Your task to perform on an android device: install app "Life360: Find Family & Friends" Image 0: 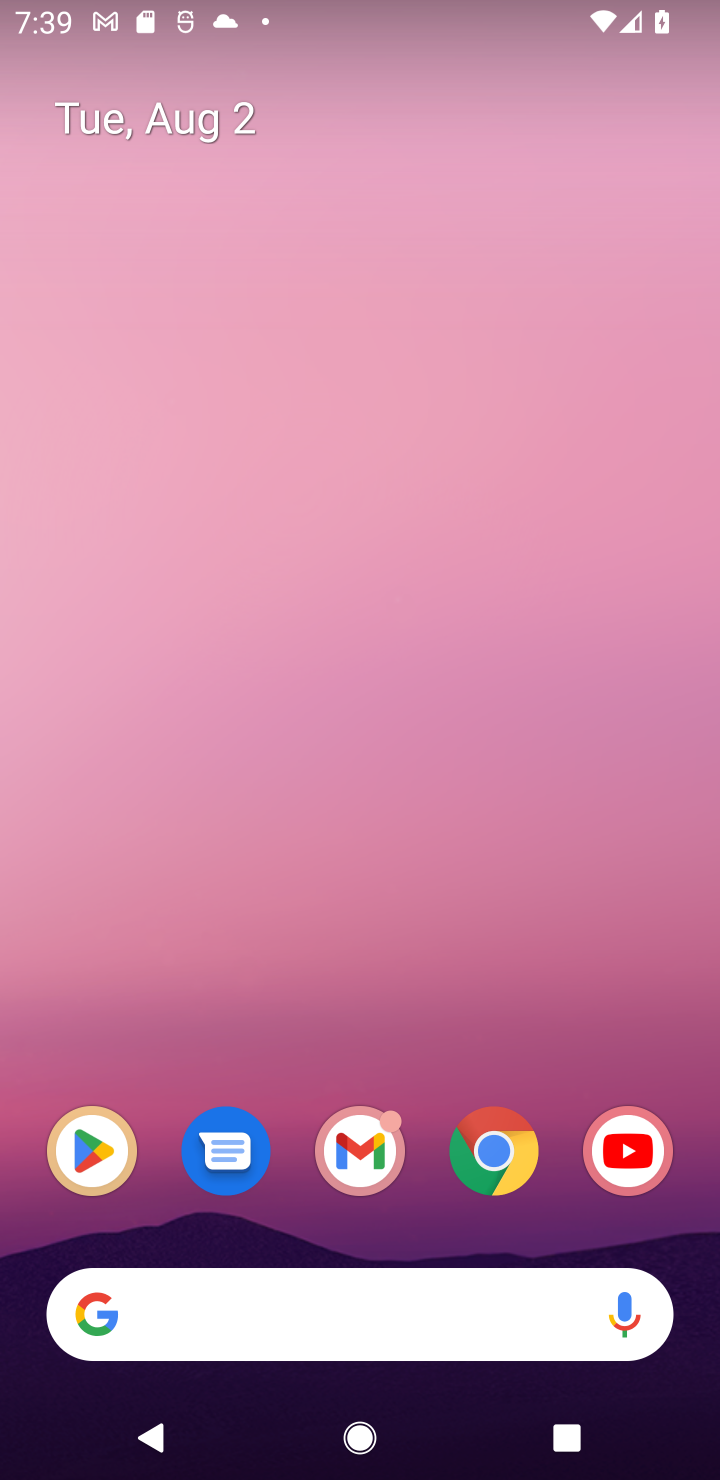
Step 0: click (85, 1158)
Your task to perform on an android device: install app "Life360: Find Family & Friends" Image 1: 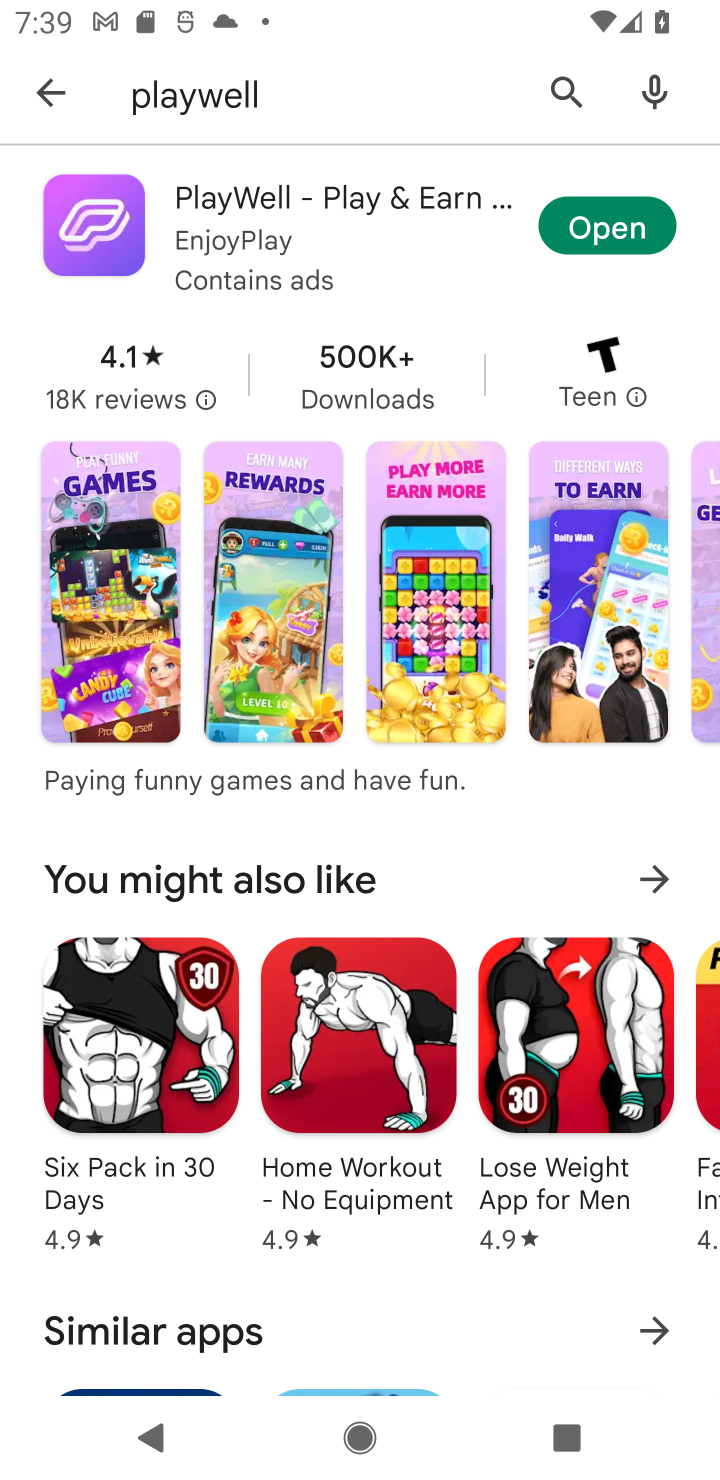
Step 1: click (629, 89)
Your task to perform on an android device: install app "Life360: Find Family & Friends" Image 2: 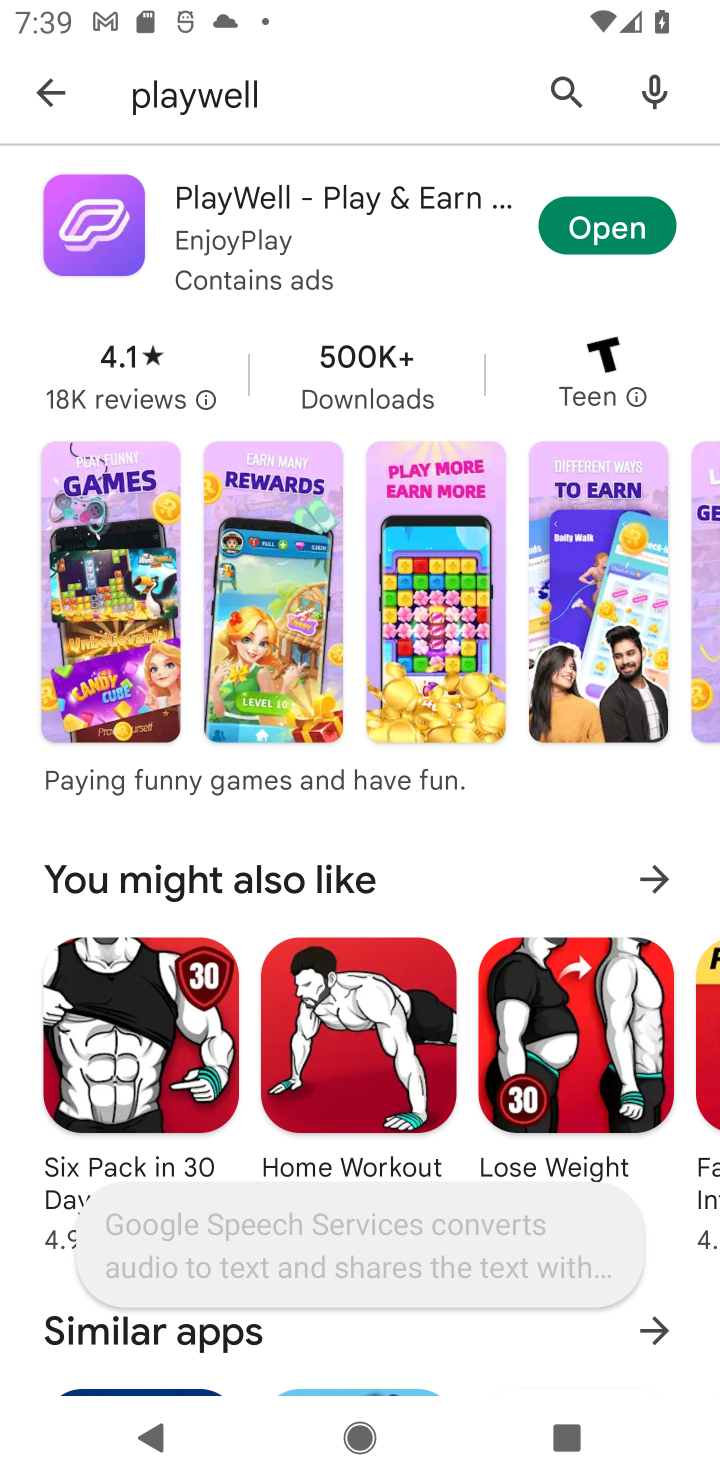
Step 2: click (560, 99)
Your task to perform on an android device: install app "Life360: Find Family & Friends" Image 3: 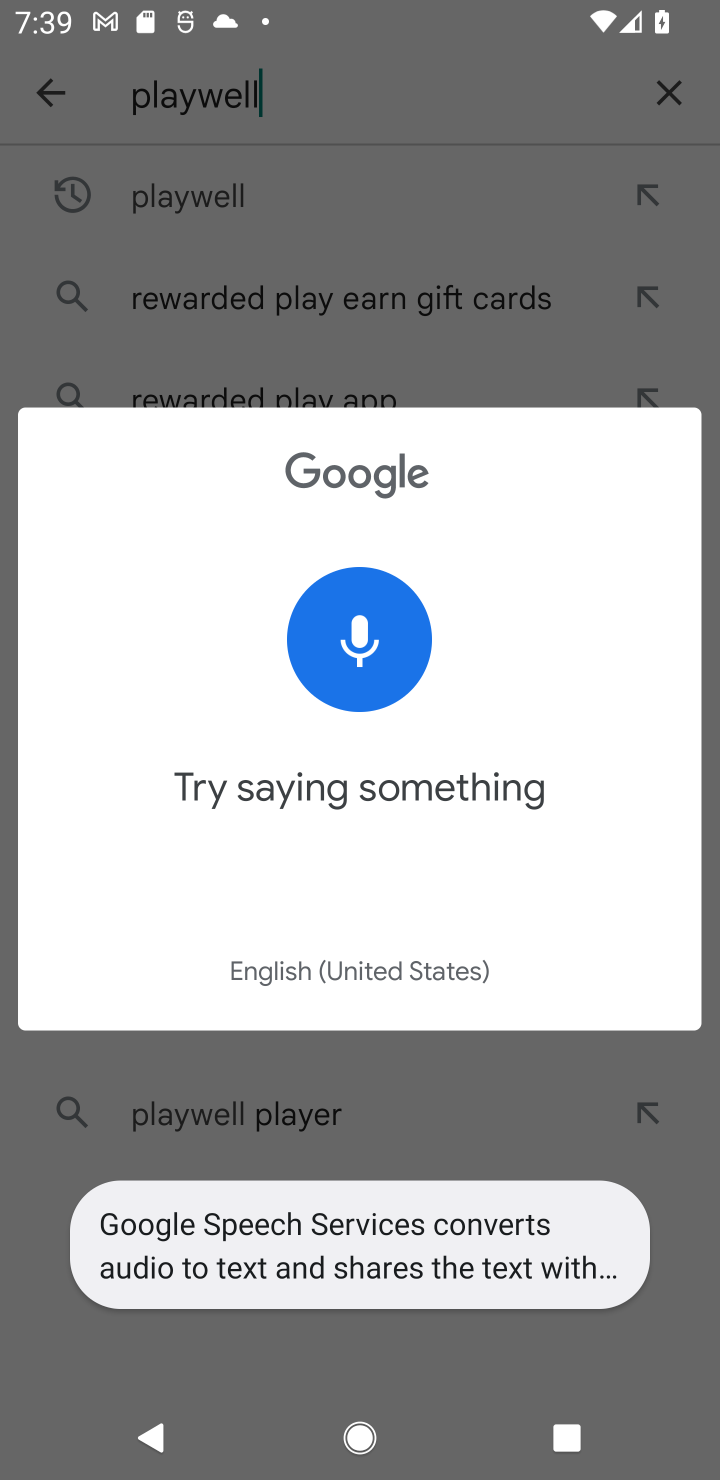
Step 3: click (668, 139)
Your task to perform on an android device: install app "Life360: Find Family & Friends" Image 4: 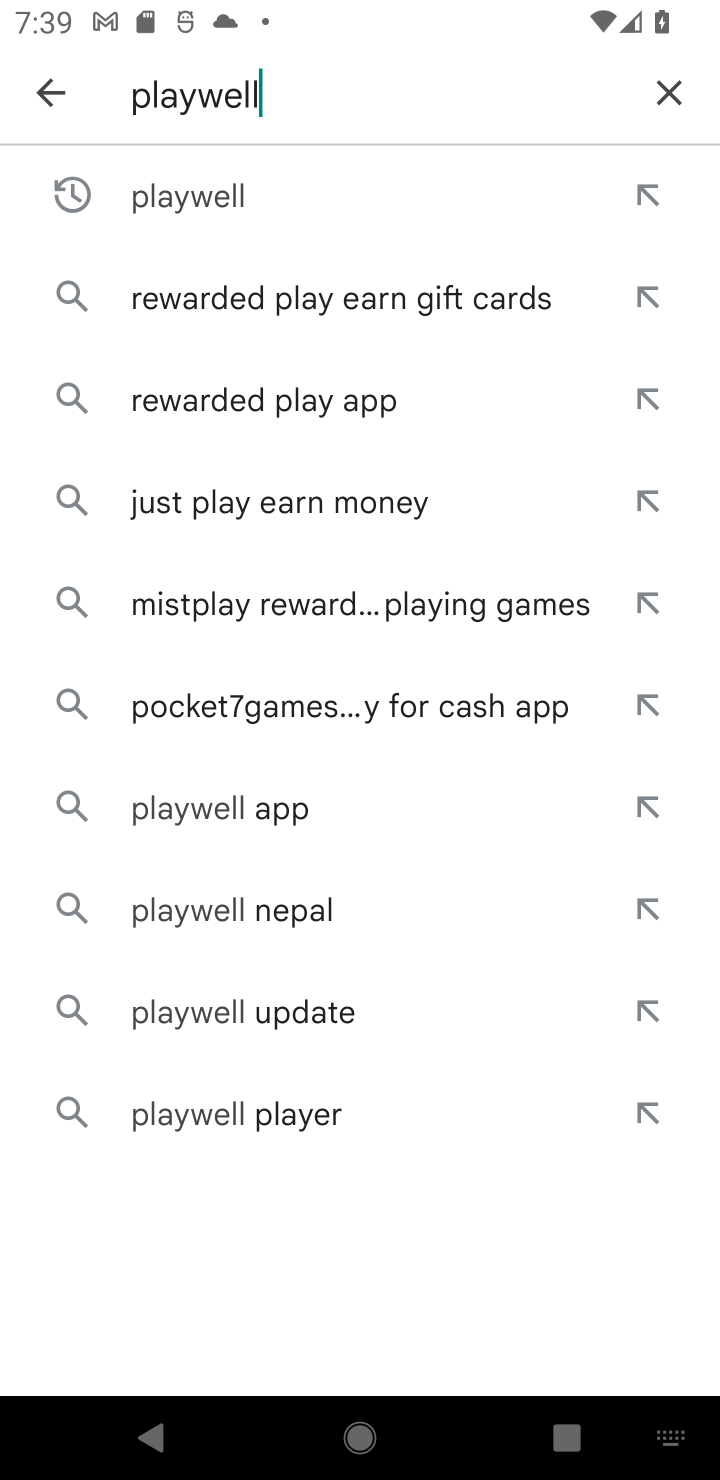
Step 4: click (670, 89)
Your task to perform on an android device: install app "Life360: Find Family & Friends" Image 5: 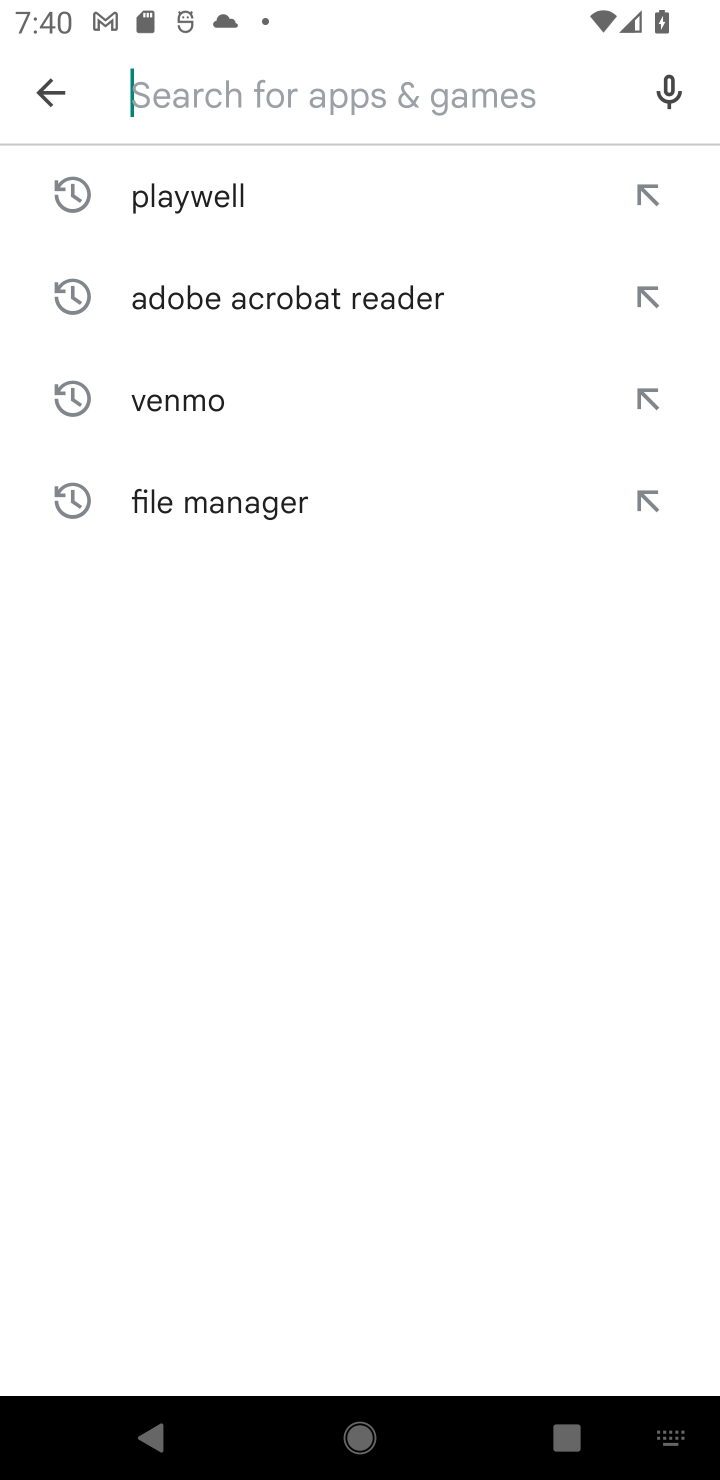
Step 5: click (391, 82)
Your task to perform on an android device: install app "Life360: Find Family & Friends" Image 6: 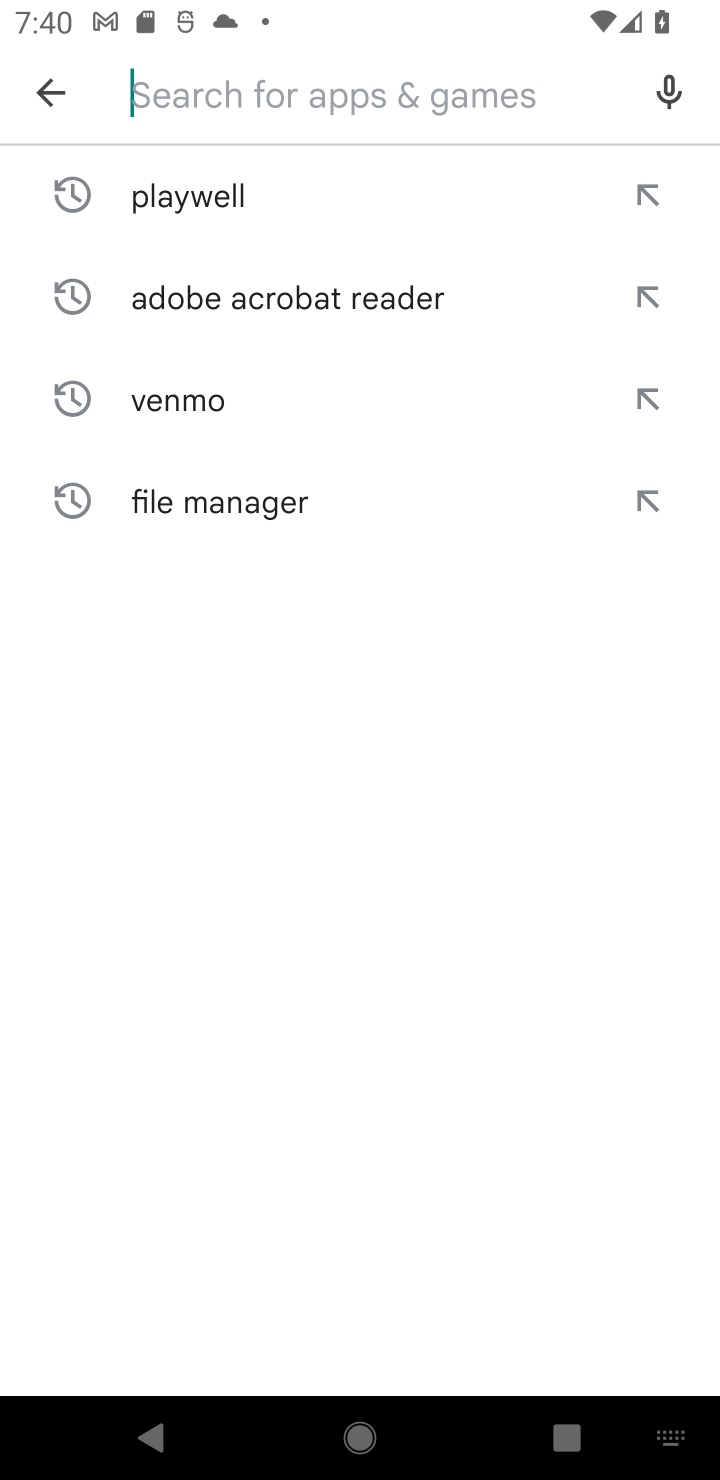
Step 6: type "Life360: Find Family & Friends"
Your task to perform on an android device: install app "Life360: Find Family & Friends" Image 7: 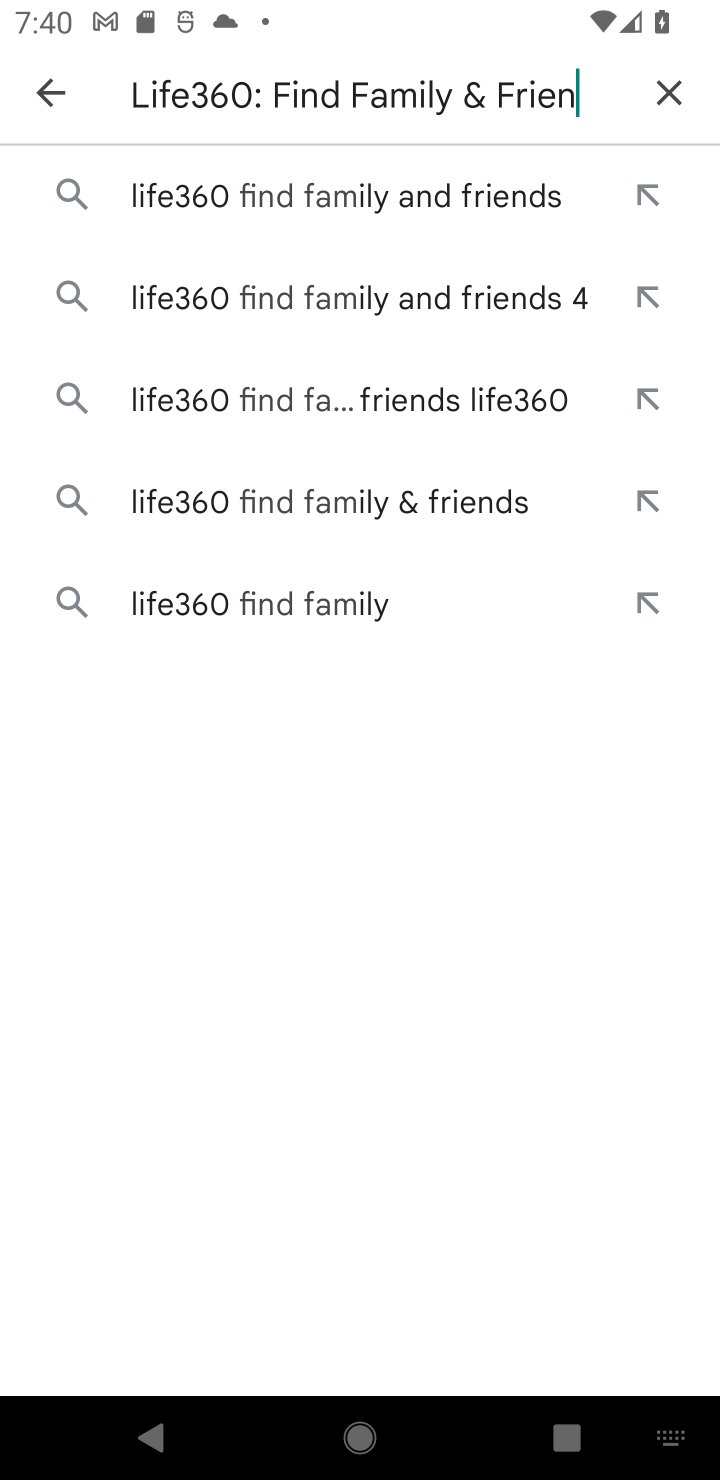
Step 7: type ""
Your task to perform on an android device: install app "Life360: Find Family & Friends" Image 8: 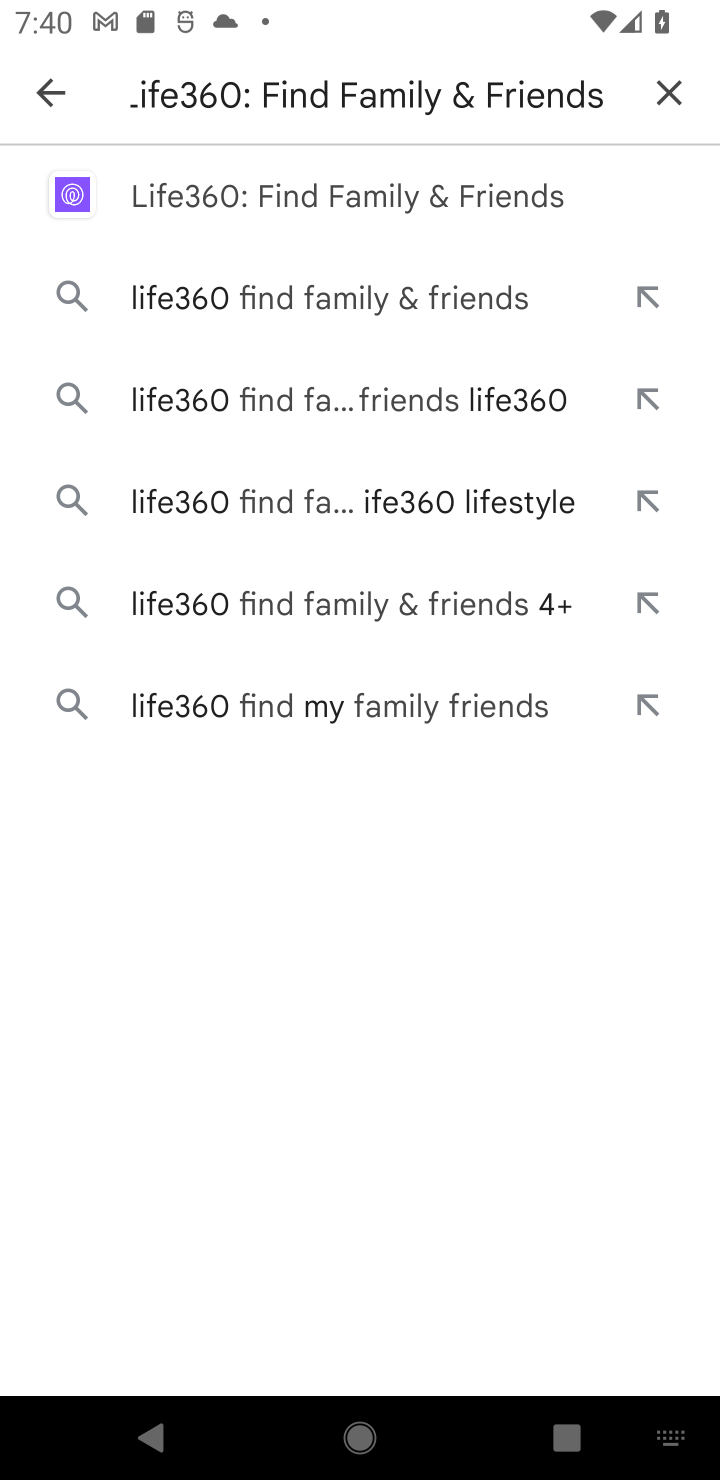
Step 8: click (331, 204)
Your task to perform on an android device: install app "Life360: Find Family & Friends" Image 9: 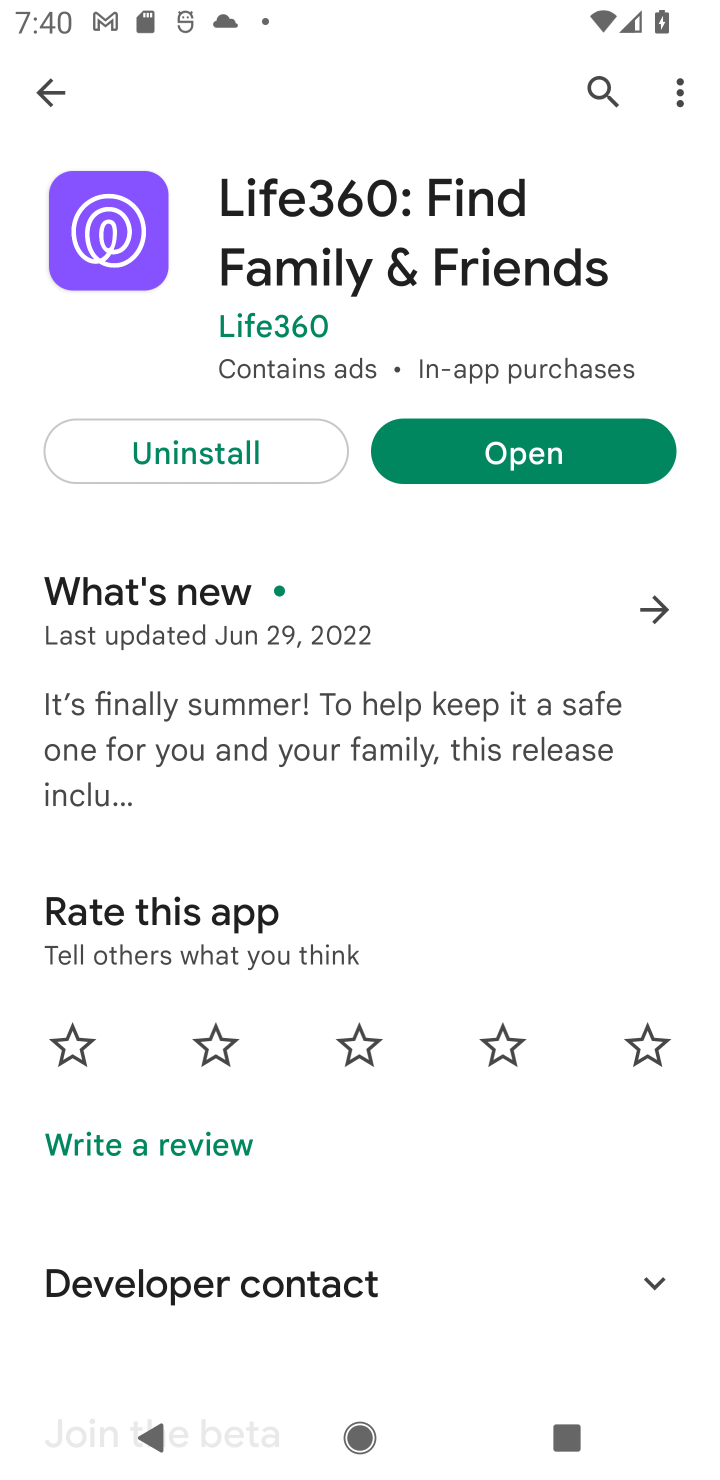
Step 9: task complete